Your task to perform on an android device: turn off sleep mode Image 0: 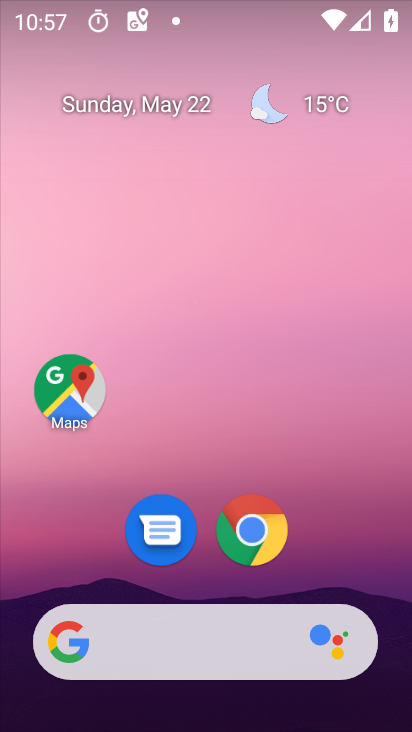
Step 0: drag from (403, 673) to (397, 311)
Your task to perform on an android device: turn off sleep mode Image 1: 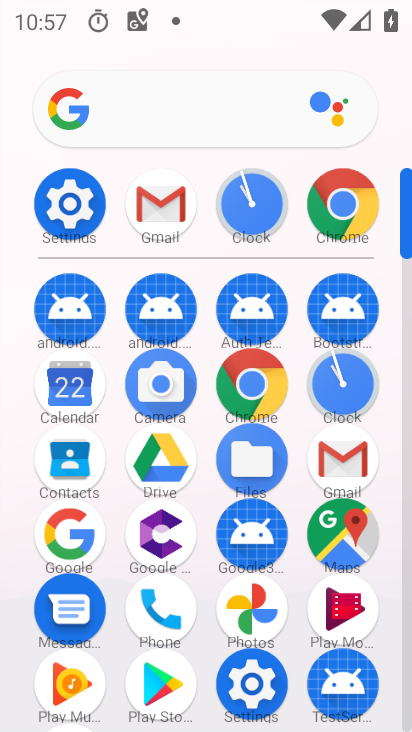
Step 1: click (64, 194)
Your task to perform on an android device: turn off sleep mode Image 2: 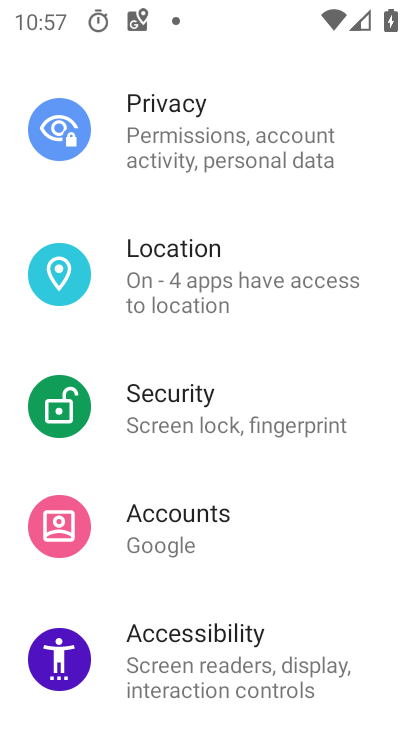
Step 2: drag from (296, 96) to (317, 619)
Your task to perform on an android device: turn off sleep mode Image 3: 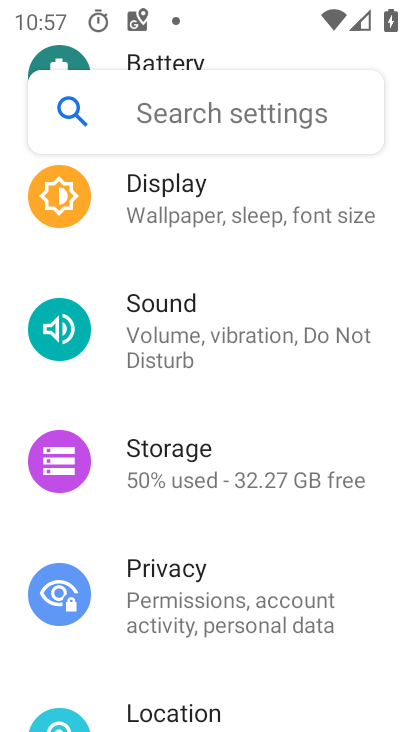
Step 3: click (174, 187)
Your task to perform on an android device: turn off sleep mode Image 4: 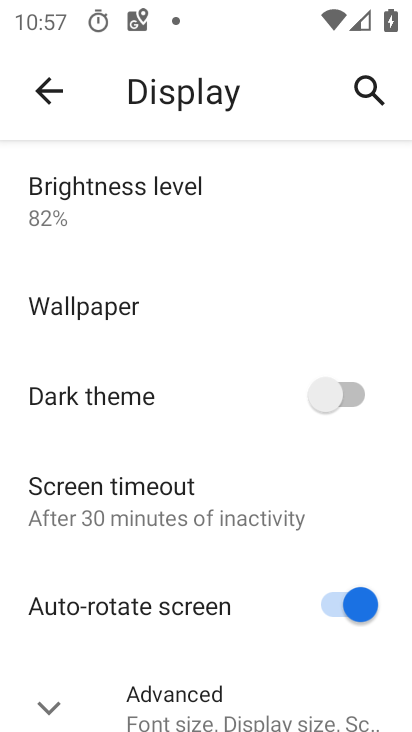
Step 4: drag from (266, 653) to (250, 357)
Your task to perform on an android device: turn off sleep mode Image 5: 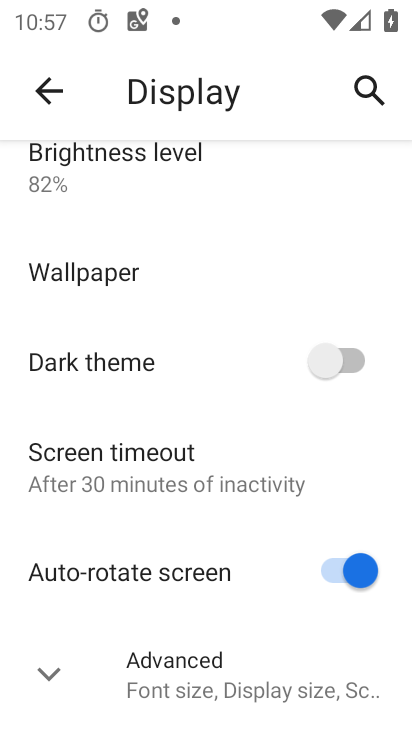
Step 5: click (143, 463)
Your task to perform on an android device: turn off sleep mode Image 6: 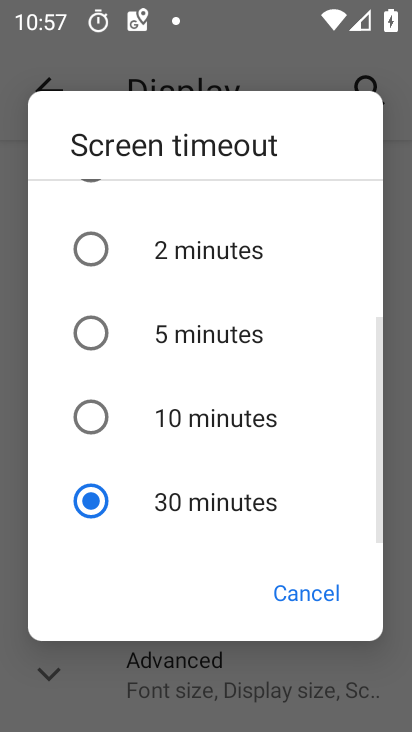
Step 6: task complete